Your task to perform on an android device: check storage Image 0: 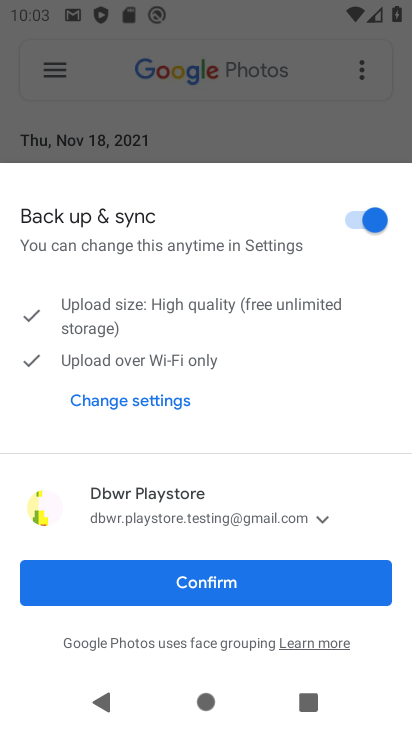
Step 0: press home button
Your task to perform on an android device: check storage Image 1: 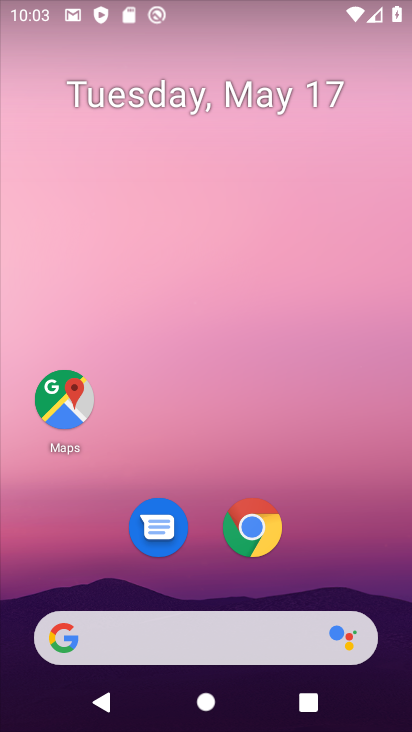
Step 1: drag from (314, 597) to (344, 0)
Your task to perform on an android device: check storage Image 2: 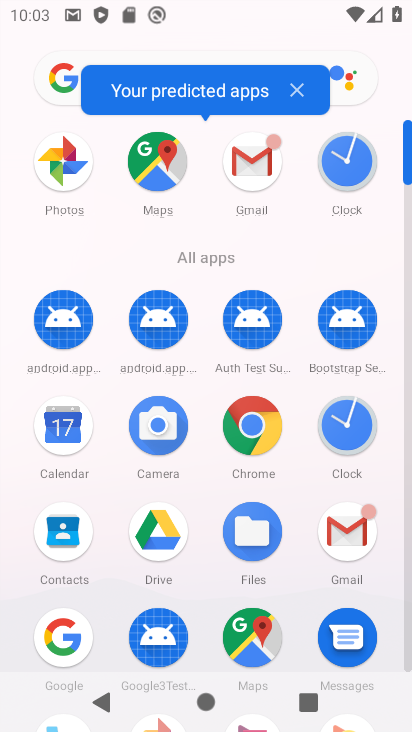
Step 2: click (406, 550)
Your task to perform on an android device: check storage Image 3: 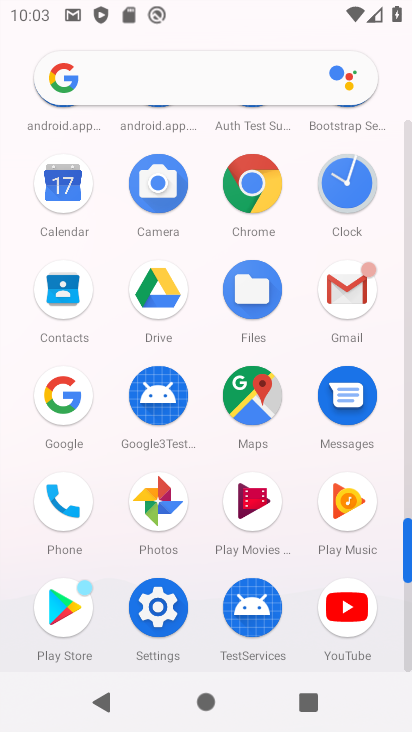
Step 3: click (164, 619)
Your task to perform on an android device: check storage Image 4: 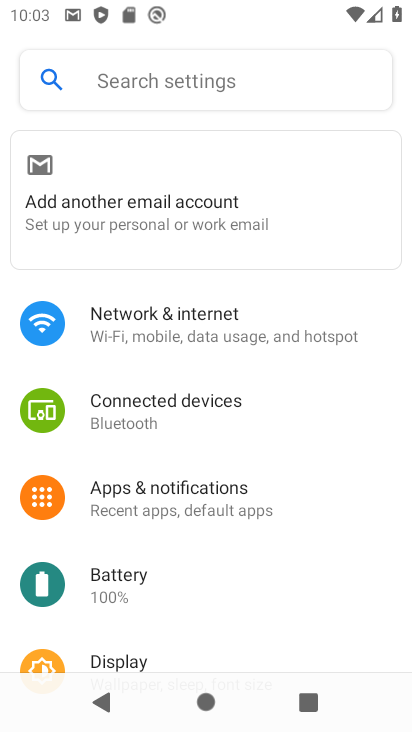
Step 4: drag from (219, 591) to (214, 157)
Your task to perform on an android device: check storage Image 5: 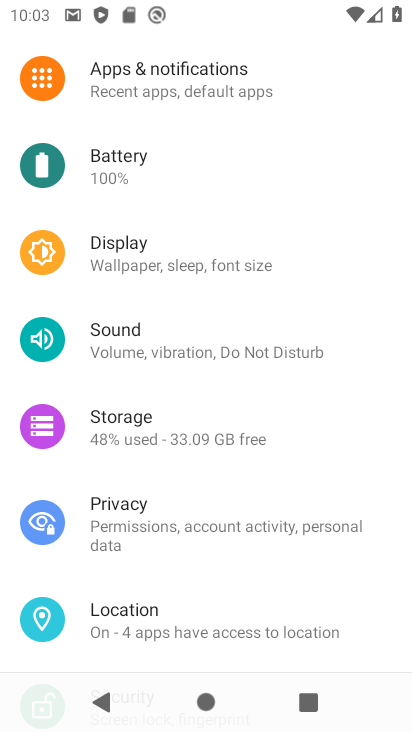
Step 5: click (132, 431)
Your task to perform on an android device: check storage Image 6: 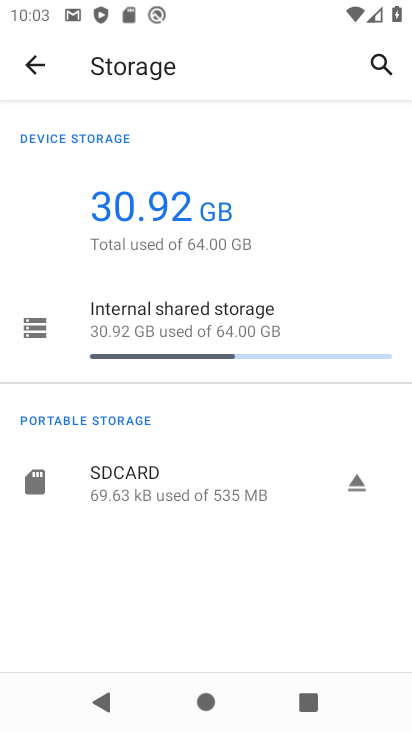
Step 6: click (141, 365)
Your task to perform on an android device: check storage Image 7: 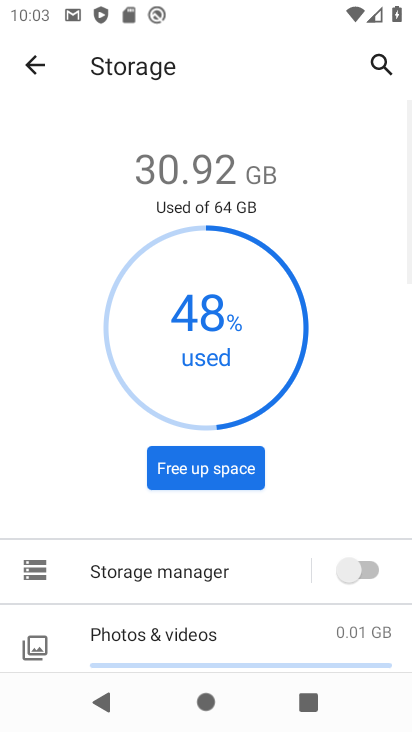
Step 7: task complete